Your task to perform on an android device: turn off airplane mode Image 0: 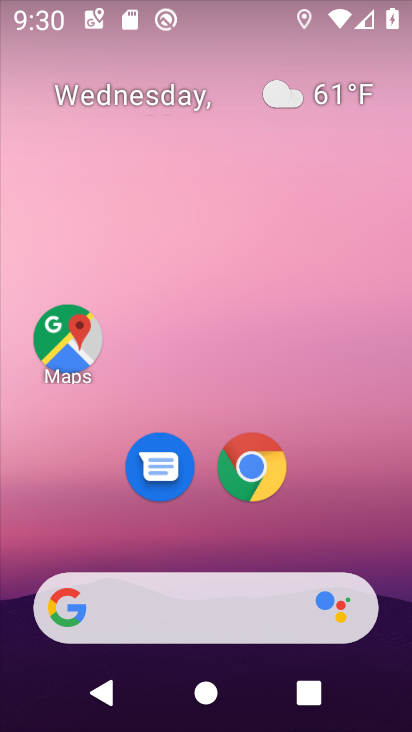
Step 0: drag from (317, 507) to (392, 50)
Your task to perform on an android device: turn off airplane mode Image 1: 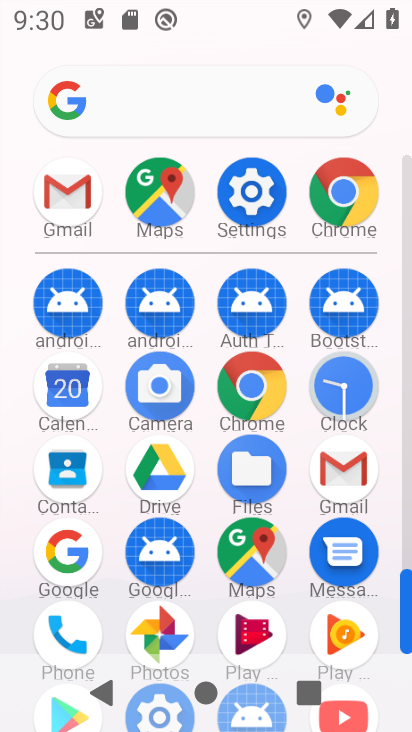
Step 1: click (251, 191)
Your task to perform on an android device: turn off airplane mode Image 2: 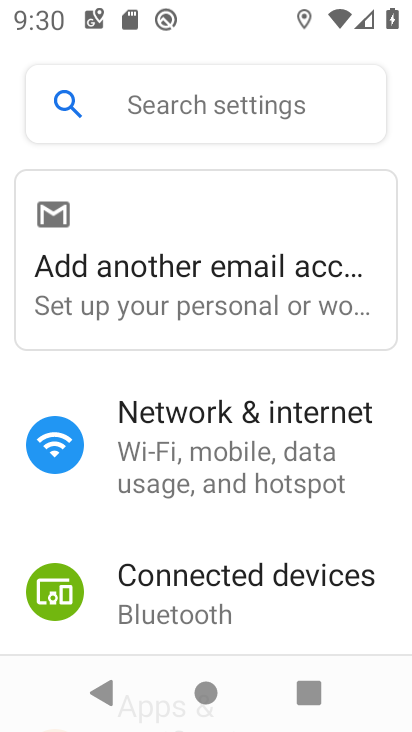
Step 2: click (159, 425)
Your task to perform on an android device: turn off airplane mode Image 3: 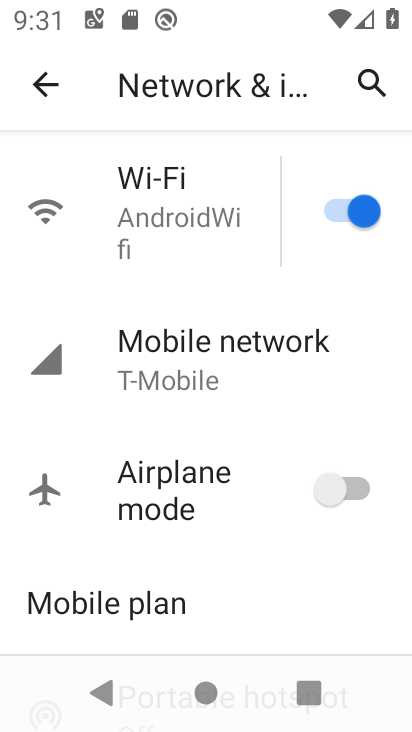
Step 3: task complete